Your task to perform on an android device: toggle data saver in the chrome app Image 0: 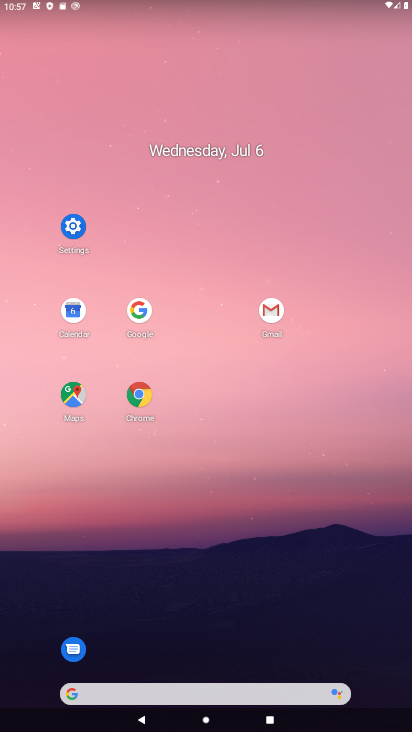
Step 0: click (143, 388)
Your task to perform on an android device: toggle data saver in the chrome app Image 1: 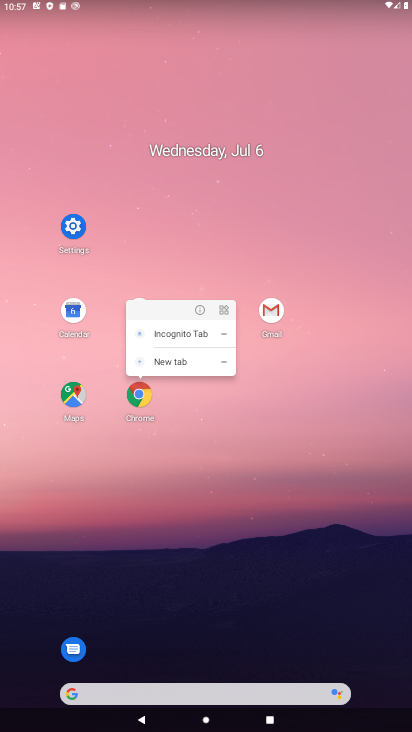
Step 1: click (143, 388)
Your task to perform on an android device: toggle data saver in the chrome app Image 2: 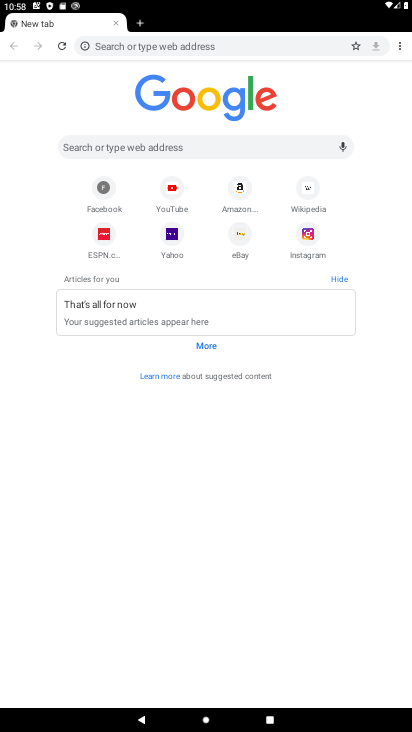
Step 2: click (396, 46)
Your task to perform on an android device: toggle data saver in the chrome app Image 3: 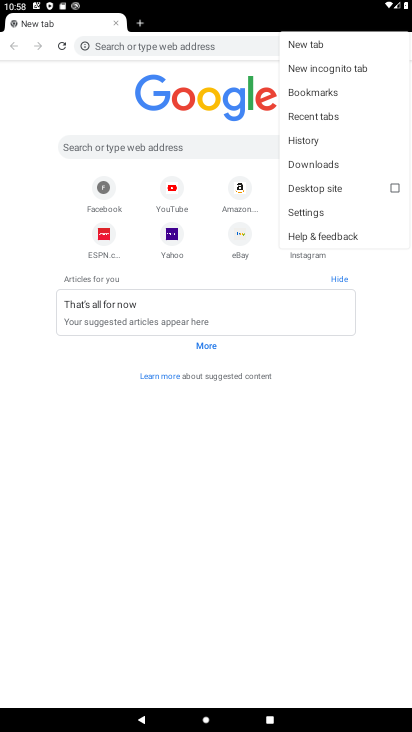
Step 3: click (335, 215)
Your task to perform on an android device: toggle data saver in the chrome app Image 4: 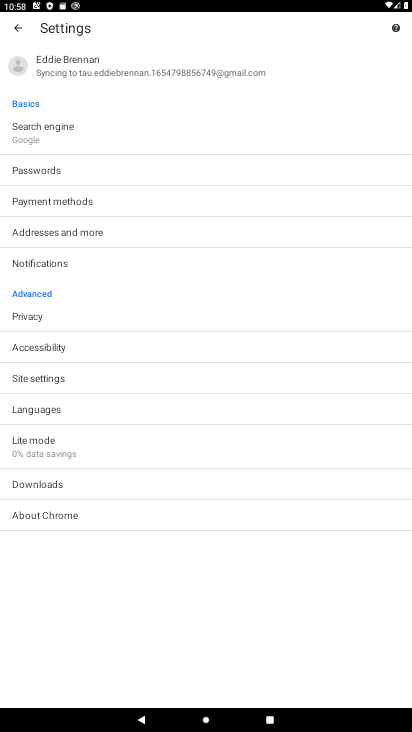
Step 4: click (99, 443)
Your task to perform on an android device: toggle data saver in the chrome app Image 5: 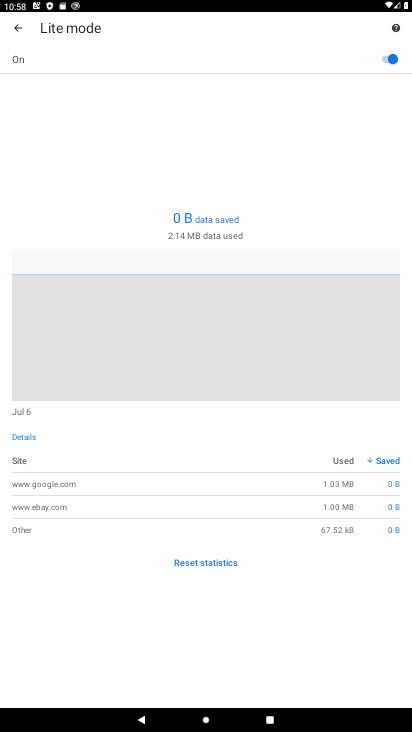
Step 5: task complete